Your task to perform on an android device: Show me popular games on the Play Store Image 0: 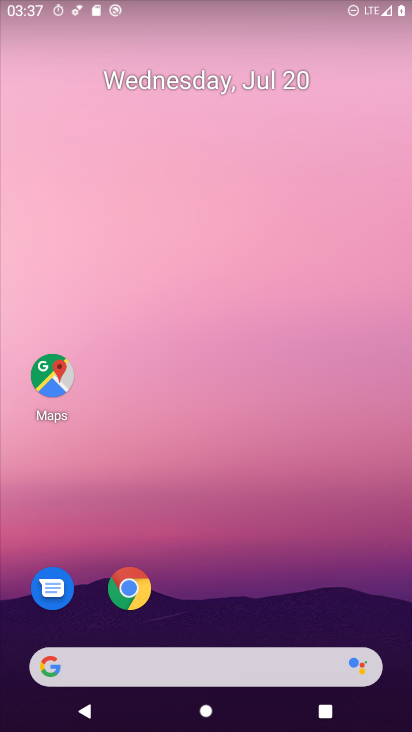
Step 0: drag from (197, 620) to (136, 30)
Your task to perform on an android device: Show me popular games on the Play Store Image 1: 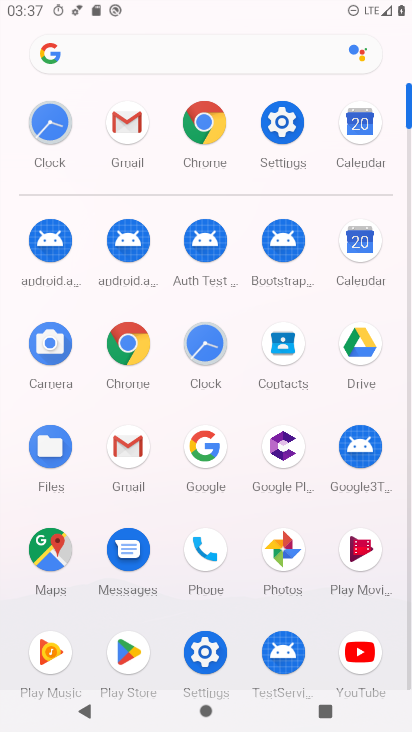
Step 1: click (347, 655)
Your task to perform on an android device: Show me popular games on the Play Store Image 2: 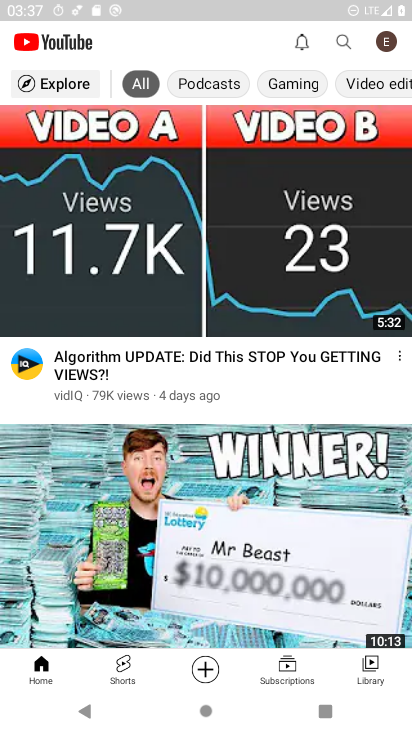
Step 2: press home button
Your task to perform on an android device: Show me popular games on the Play Store Image 3: 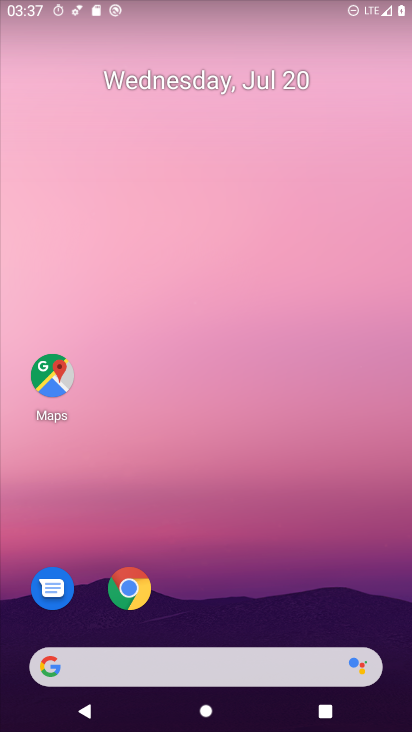
Step 3: drag from (264, 633) to (200, 94)
Your task to perform on an android device: Show me popular games on the Play Store Image 4: 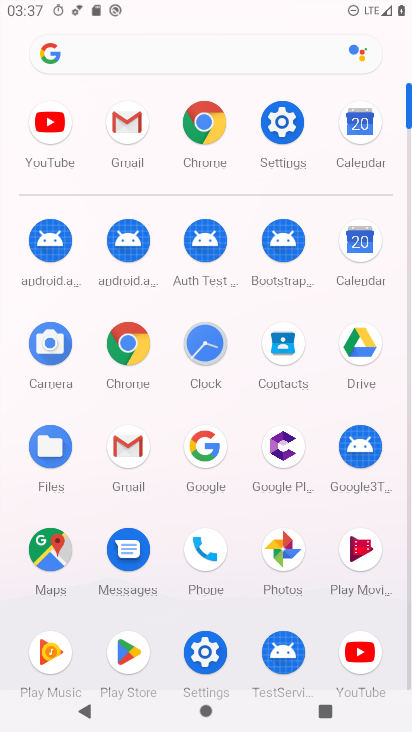
Step 4: click (123, 642)
Your task to perform on an android device: Show me popular games on the Play Store Image 5: 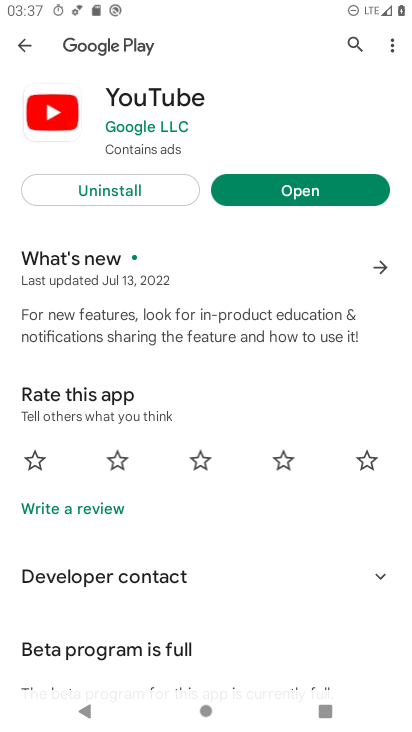
Step 5: click (24, 41)
Your task to perform on an android device: Show me popular games on the Play Store Image 6: 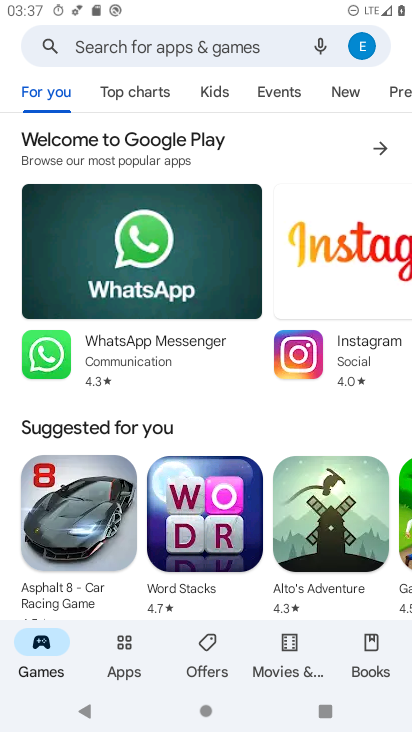
Step 6: drag from (197, 506) to (201, 94)
Your task to perform on an android device: Show me popular games on the Play Store Image 7: 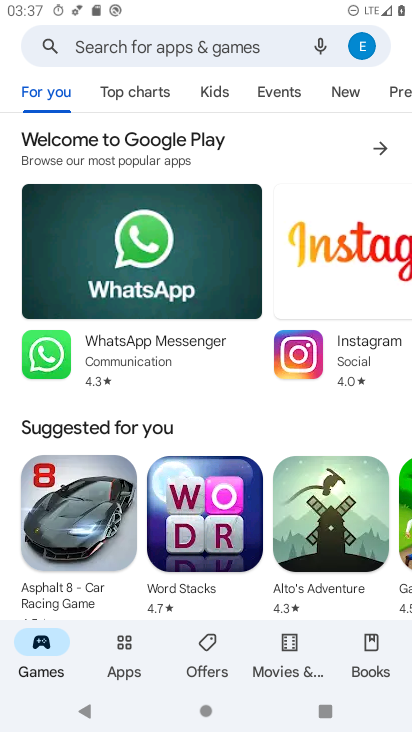
Step 7: drag from (248, 401) to (214, 0)
Your task to perform on an android device: Show me popular games on the Play Store Image 8: 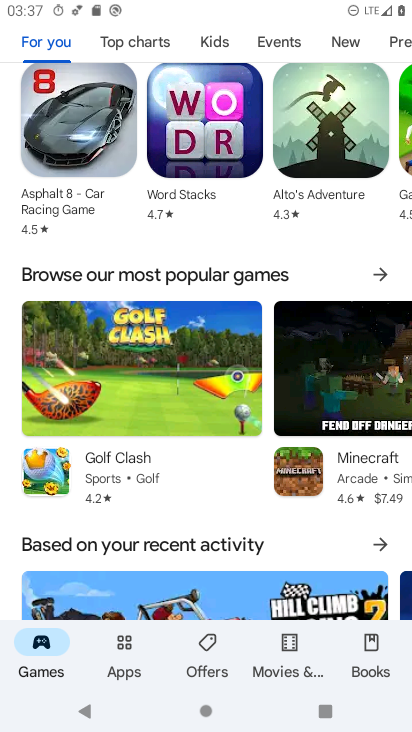
Step 8: click (387, 274)
Your task to perform on an android device: Show me popular games on the Play Store Image 9: 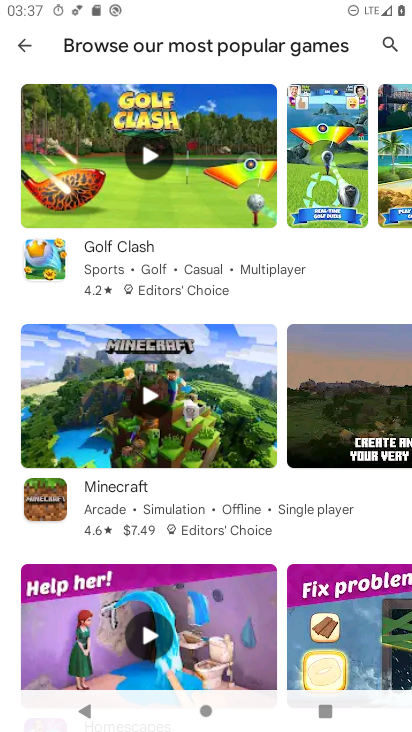
Step 9: task complete